Your task to perform on an android device: open chrome privacy settings Image 0: 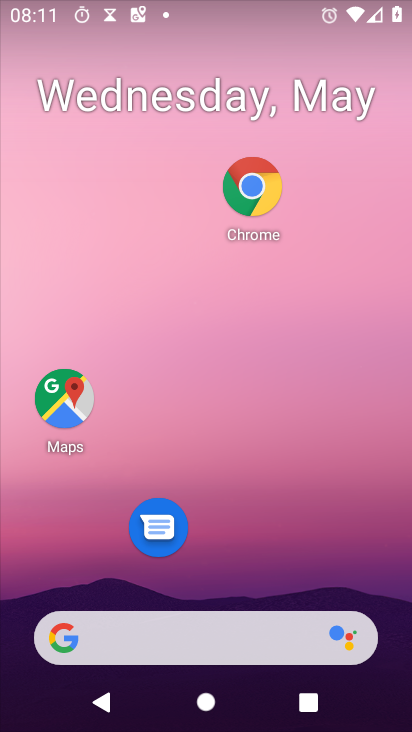
Step 0: click (263, 187)
Your task to perform on an android device: open chrome privacy settings Image 1: 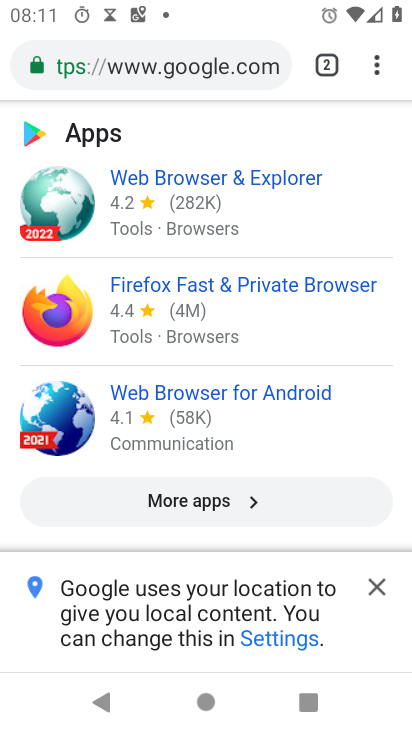
Step 1: drag from (377, 64) to (167, 574)
Your task to perform on an android device: open chrome privacy settings Image 2: 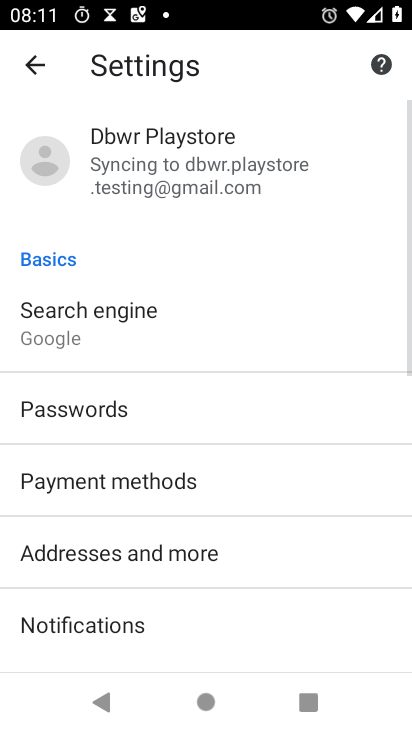
Step 2: drag from (250, 628) to (282, 212)
Your task to perform on an android device: open chrome privacy settings Image 3: 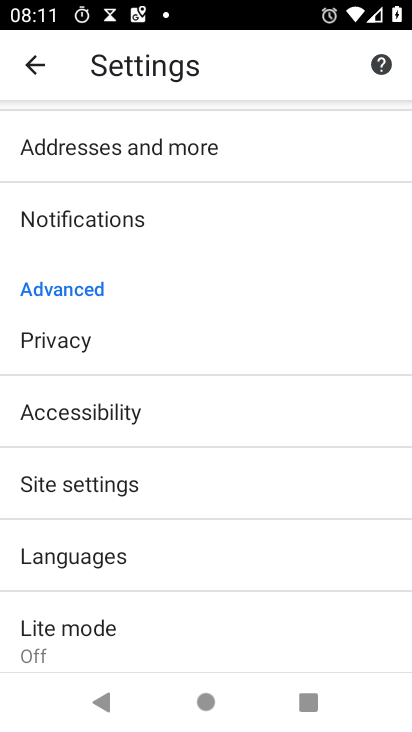
Step 3: click (61, 338)
Your task to perform on an android device: open chrome privacy settings Image 4: 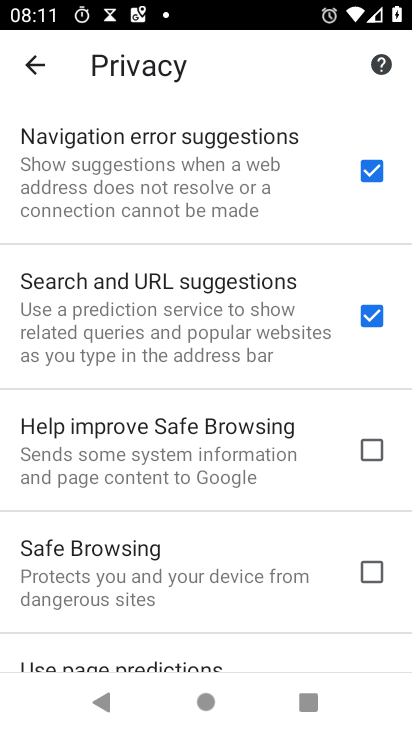
Step 4: task complete